Your task to perform on an android device: What's the weather going to be this weekend? Image 0: 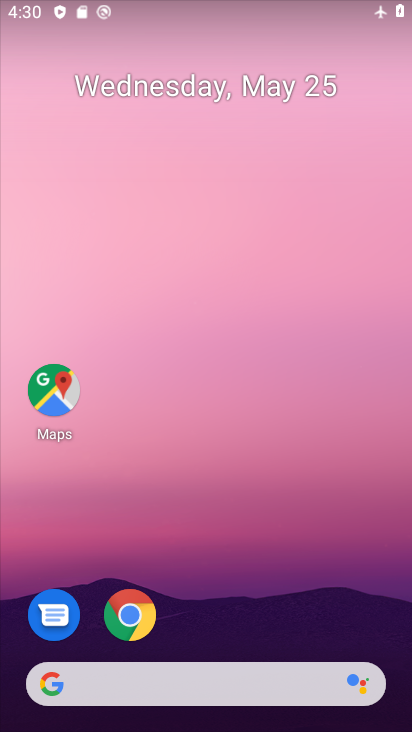
Step 0: press home button
Your task to perform on an android device: What's the weather going to be this weekend? Image 1: 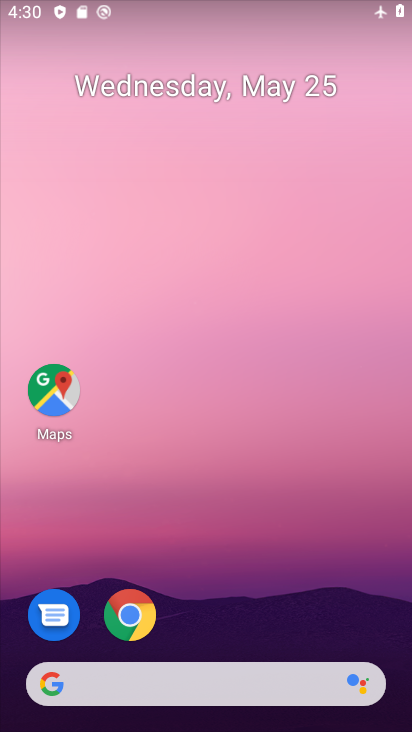
Step 1: click (165, 625)
Your task to perform on an android device: What's the weather going to be this weekend? Image 2: 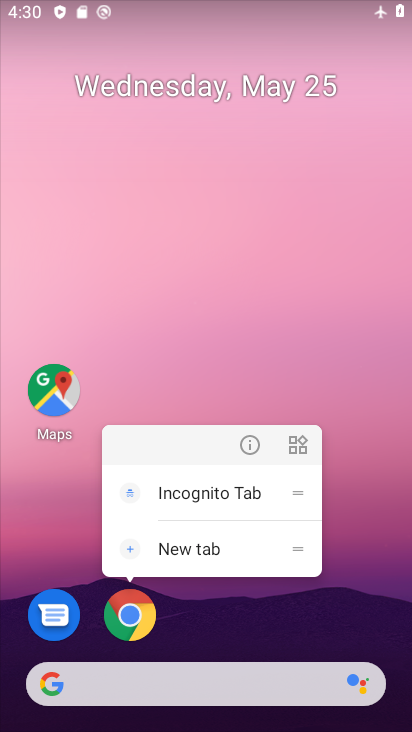
Step 2: click (165, 625)
Your task to perform on an android device: What's the weather going to be this weekend? Image 3: 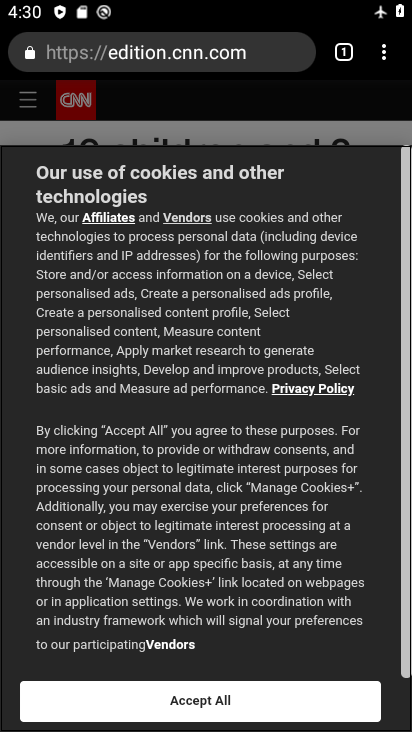
Step 3: click (206, 49)
Your task to perform on an android device: What's the weather going to be this weekend? Image 4: 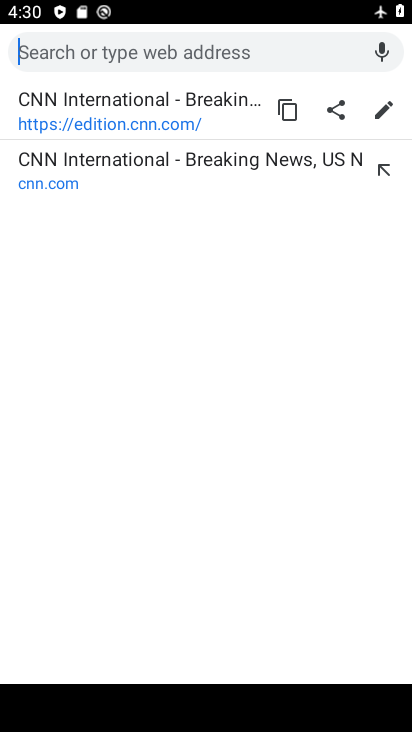
Step 4: type " What's the weather going to be this weekend?v"
Your task to perform on an android device: What's the weather going to be this weekend? Image 5: 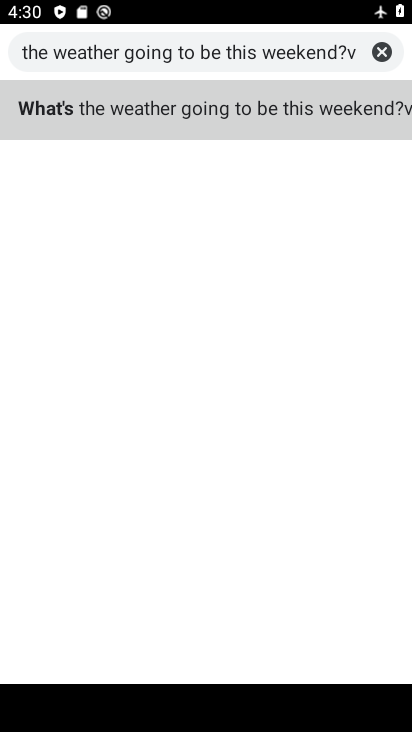
Step 5: click (83, 107)
Your task to perform on an android device: What's the weather going to be this weekend? Image 6: 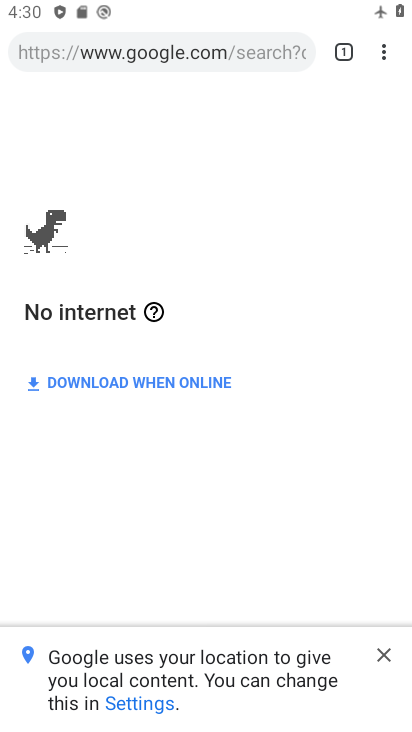
Step 6: drag from (322, 0) to (1, 470)
Your task to perform on an android device: What's the weather going to be this weekend? Image 7: 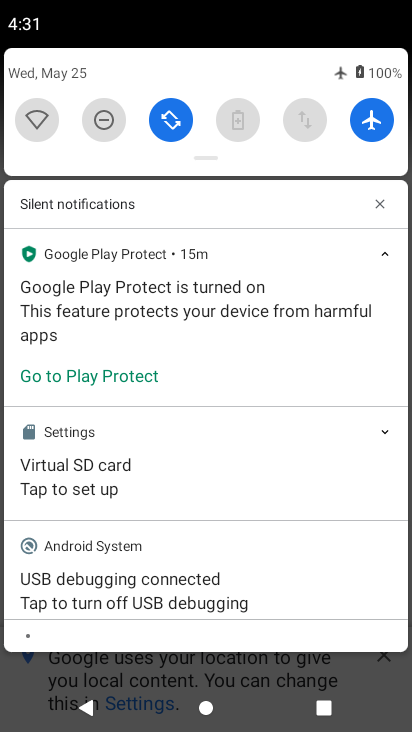
Step 7: click (380, 101)
Your task to perform on an android device: What's the weather going to be this weekend? Image 8: 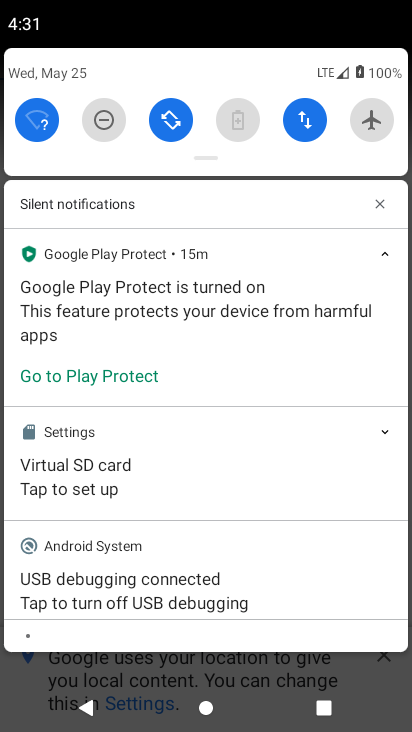
Step 8: task complete